Your task to perform on an android device: delete the emails in spam in the gmail app Image 0: 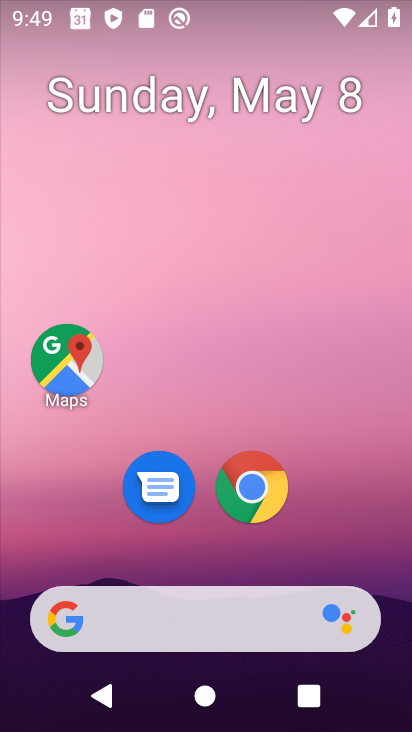
Step 0: drag from (355, 387) to (364, 75)
Your task to perform on an android device: delete the emails in spam in the gmail app Image 1: 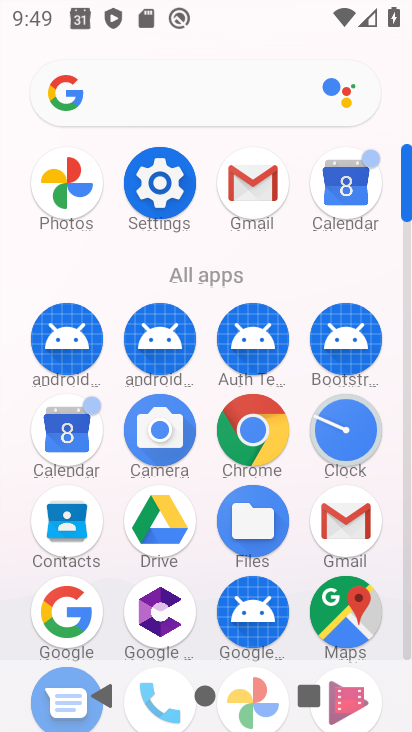
Step 1: click (269, 192)
Your task to perform on an android device: delete the emails in spam in the gmail app Image 2: 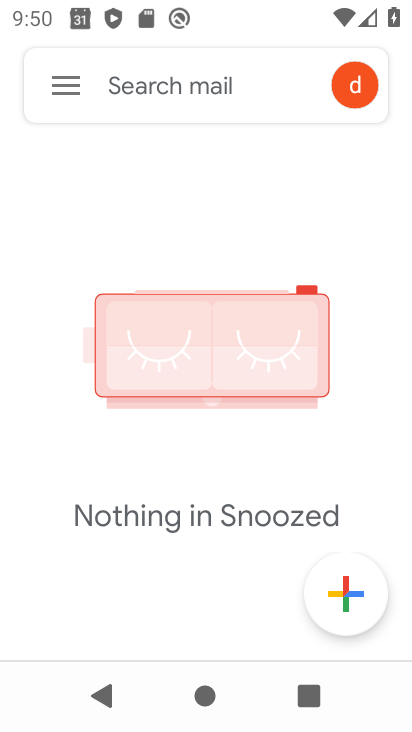
Step 2: click (86, 99)
Your task to perform on an android device: delete the emails in spam in the gmail app Image 3: 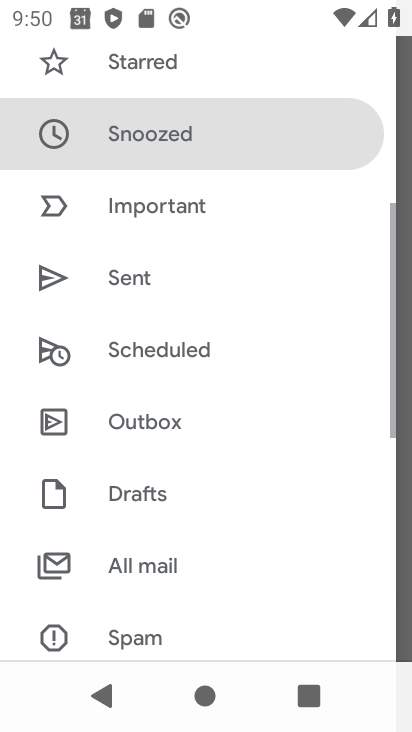
Step 3: drag from (139, 170) to (136, 530)
Your task to perform on an android device: delete the emails in spam in the gmail app Image 4: 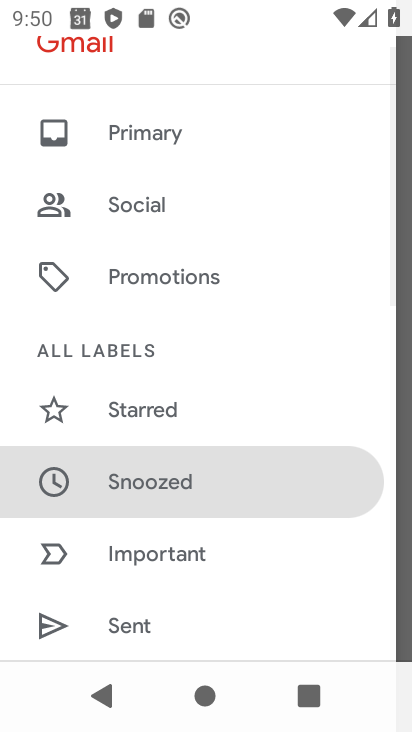
Step 4: drag from (169, 397) to (153, 554)
Your task to perform on an android device: delete the emails in spam in the gmail app Image 5: 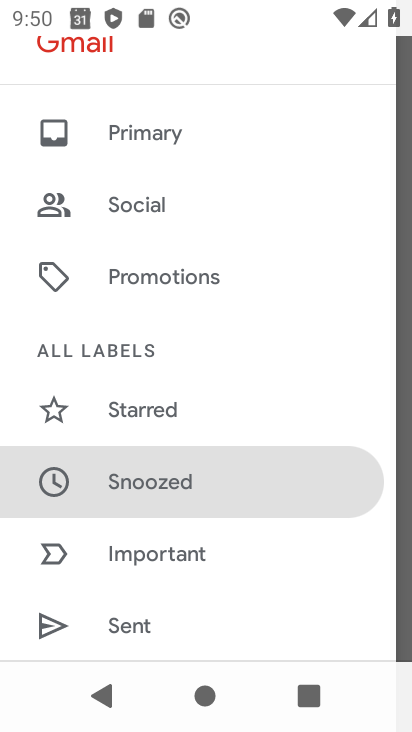
Step 5: drag from (161, 599) to (222, 263)
Your task to perform on an android device: delete the emails in spam in the gmail app Image 6: 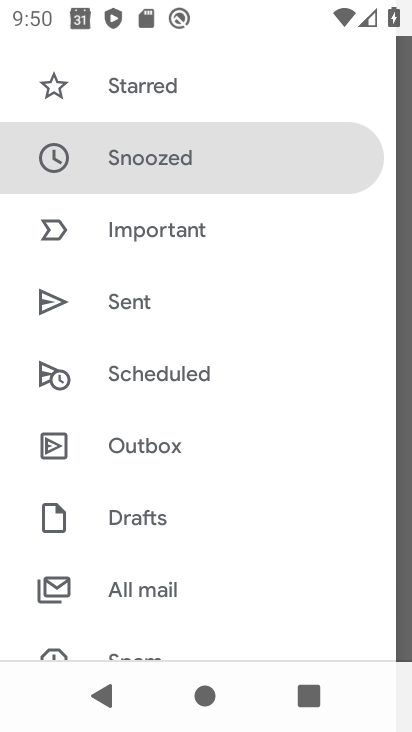
Step 6: drag from (204, 568) to (235, 343)
Your task to perform on an android device: delete the emails in spam in the gmail app Image 7: 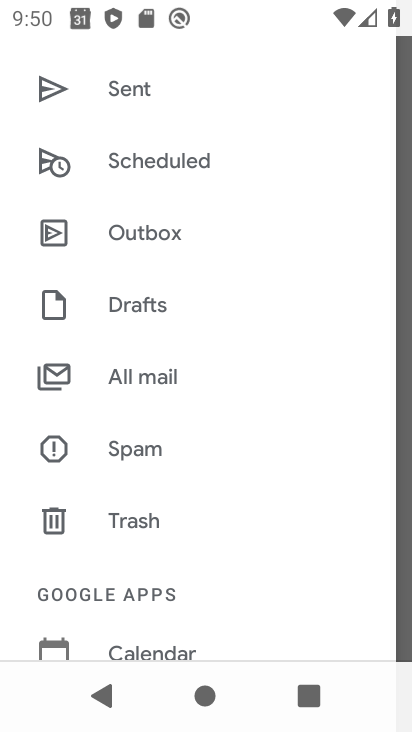
Step 7: click (136, 383)
Your task to perform on an android device: delete the emails in spam in the gmail app Image 8: 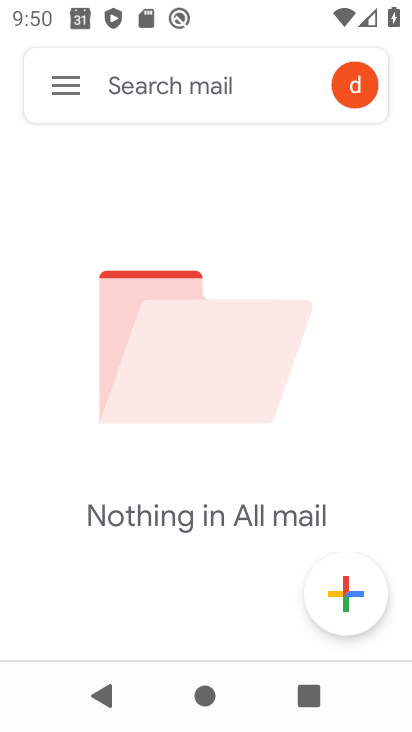
Step 8: task complete